Your task to perform on an android device: open app "AliExpress" (install if not already installed) Image 0: 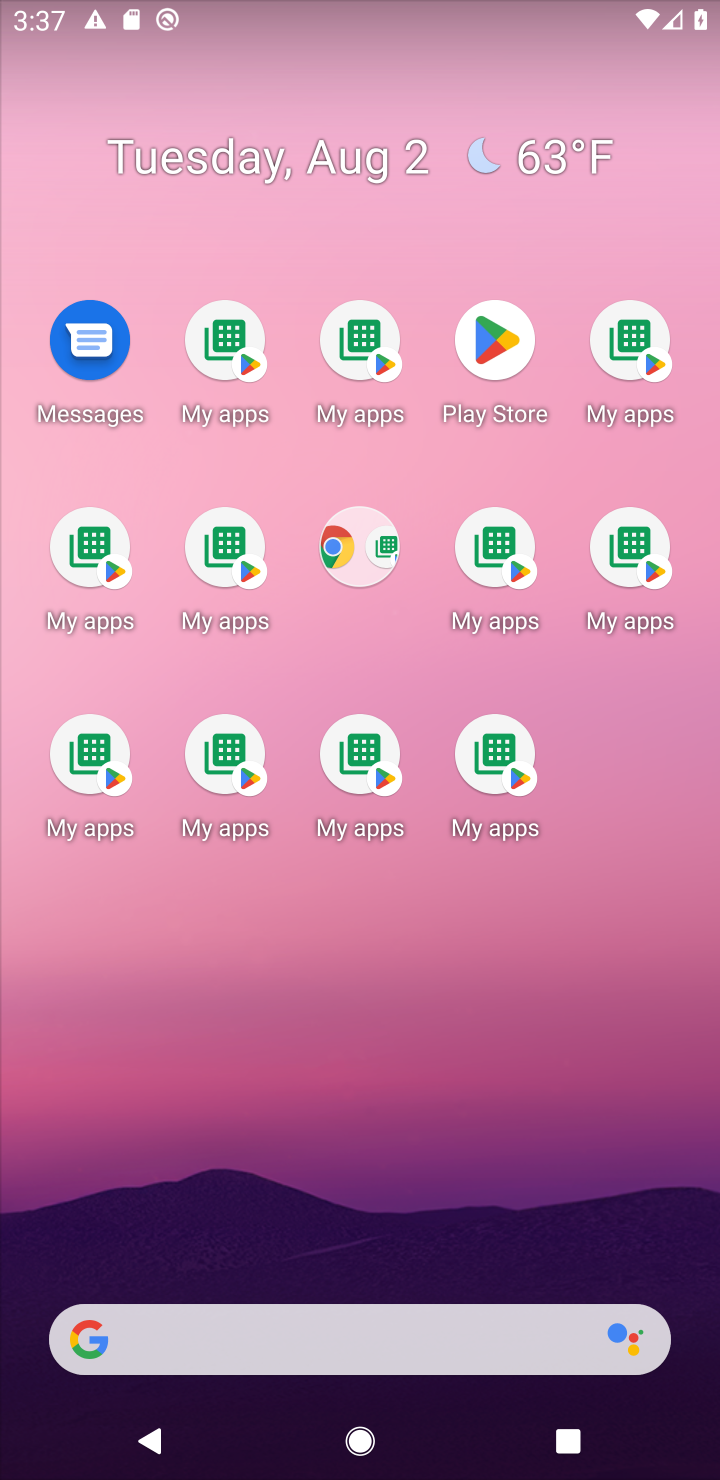
Step 0: press back button
Your task to perform on an android device: open app "AliExpress" (install if not already installed) Image 1: 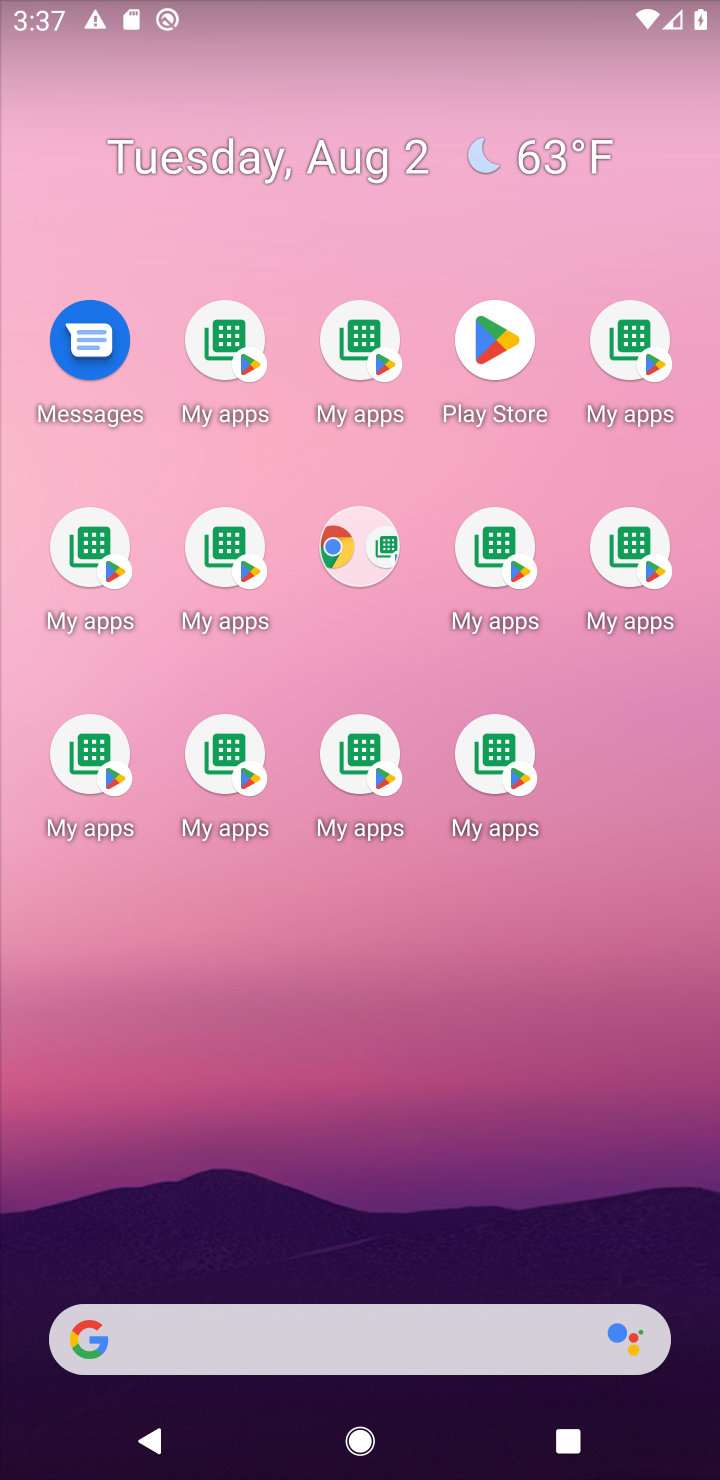
Step 1: click (315, 392)
Your task to perform on an android device: open app "AliExpress" (install if not already installed) Image 2: 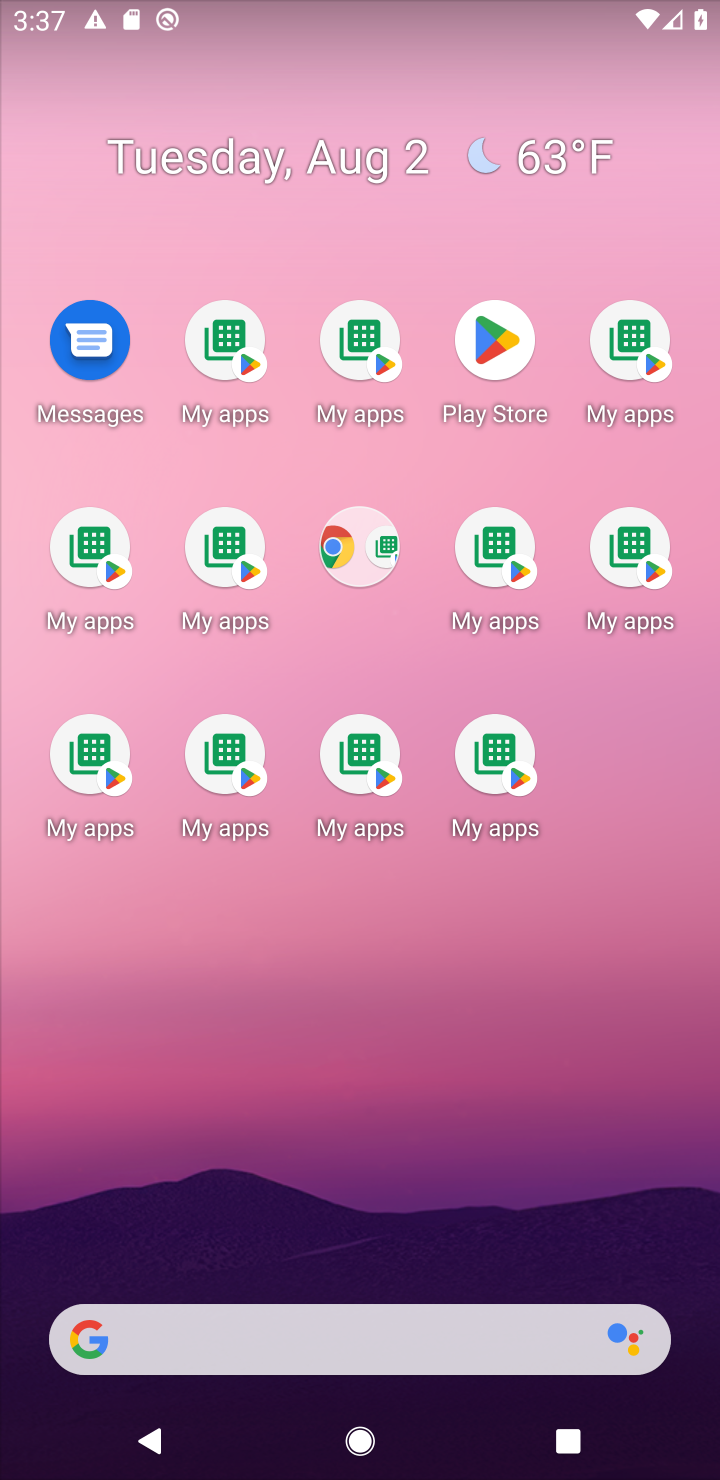
Step 2: click (575, 319)
Your task to perform on an android device: open app "AliExpress" (install if not already installed) Image 3: 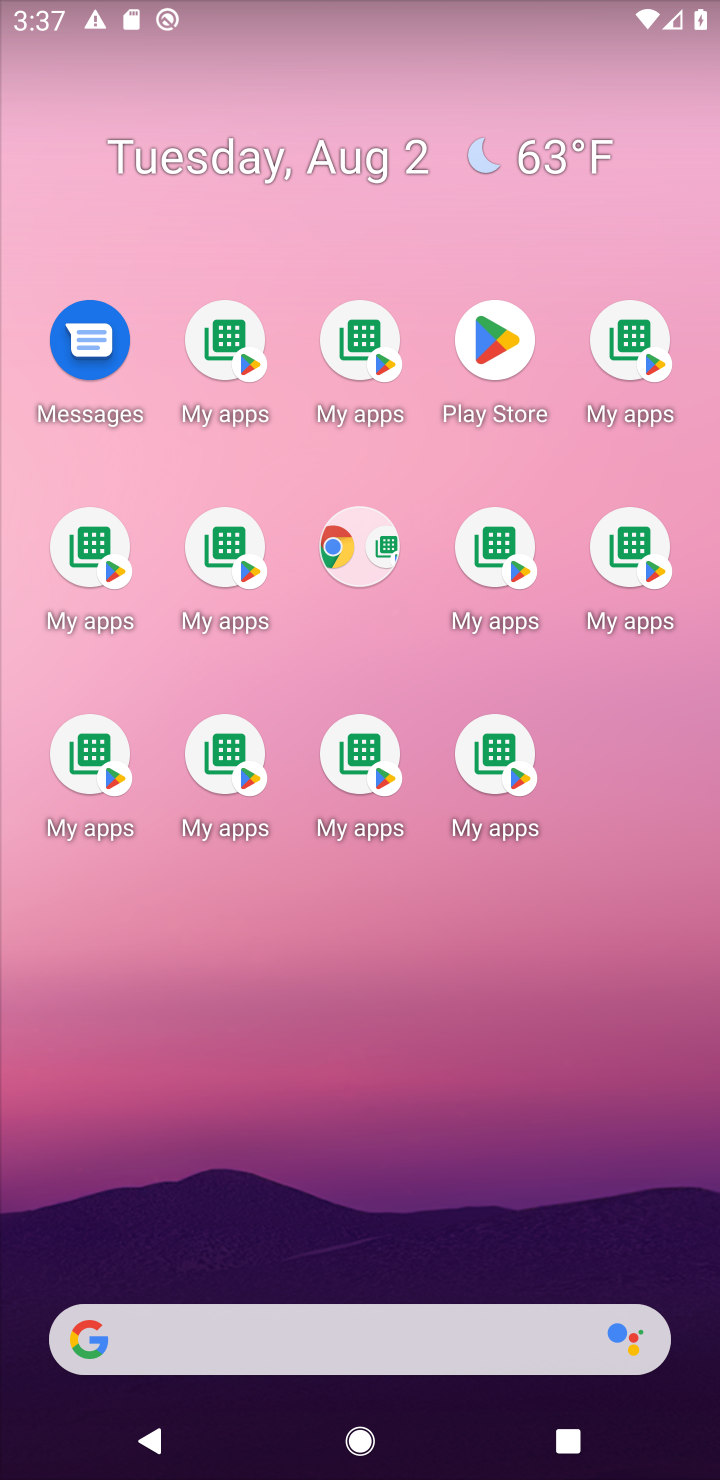
Step 3: drag from (528, 312) to (486, 370)
Your task to perform on an android device: open app "AliExpress" (install if not already installed) Image 4: 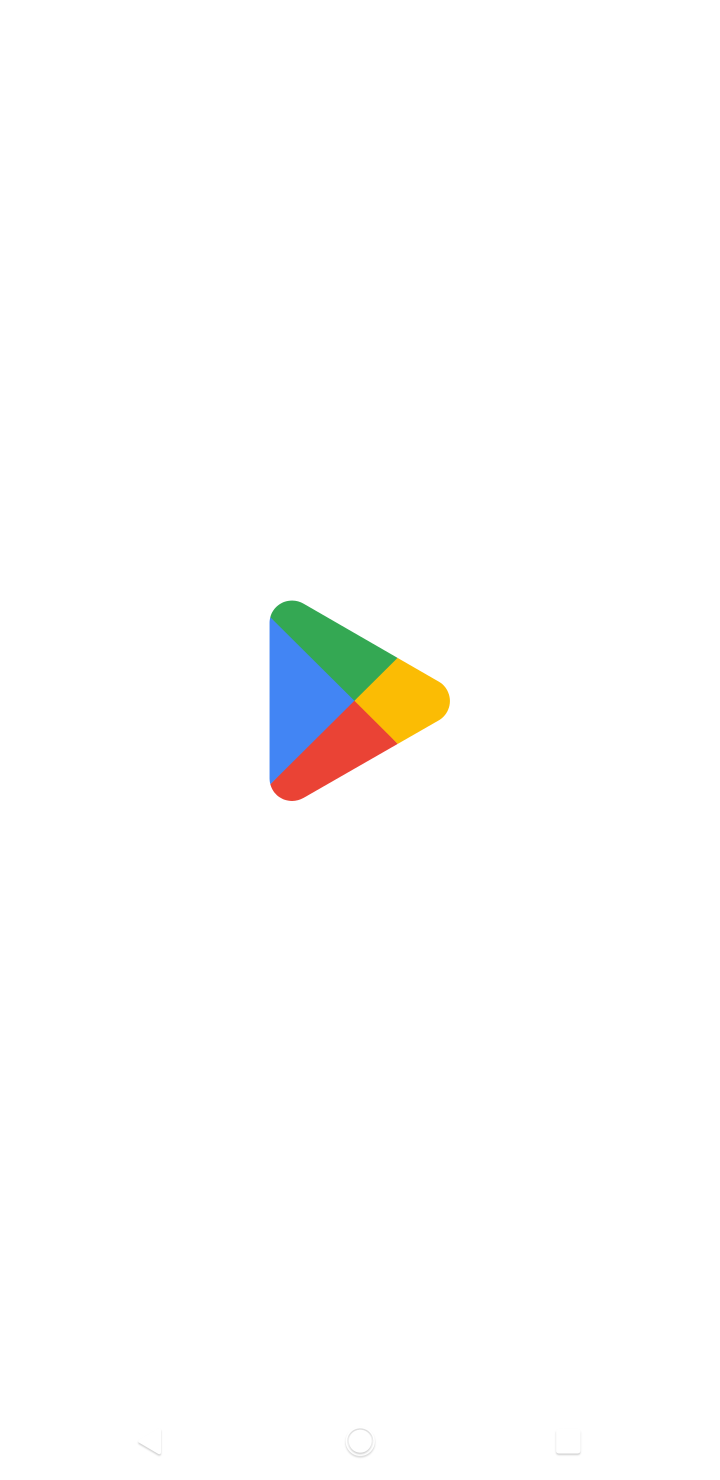
Step 4: click (495, 382)
Your task to perform on an android device: open app "AliExpress" (install if not already installed) Image 5: 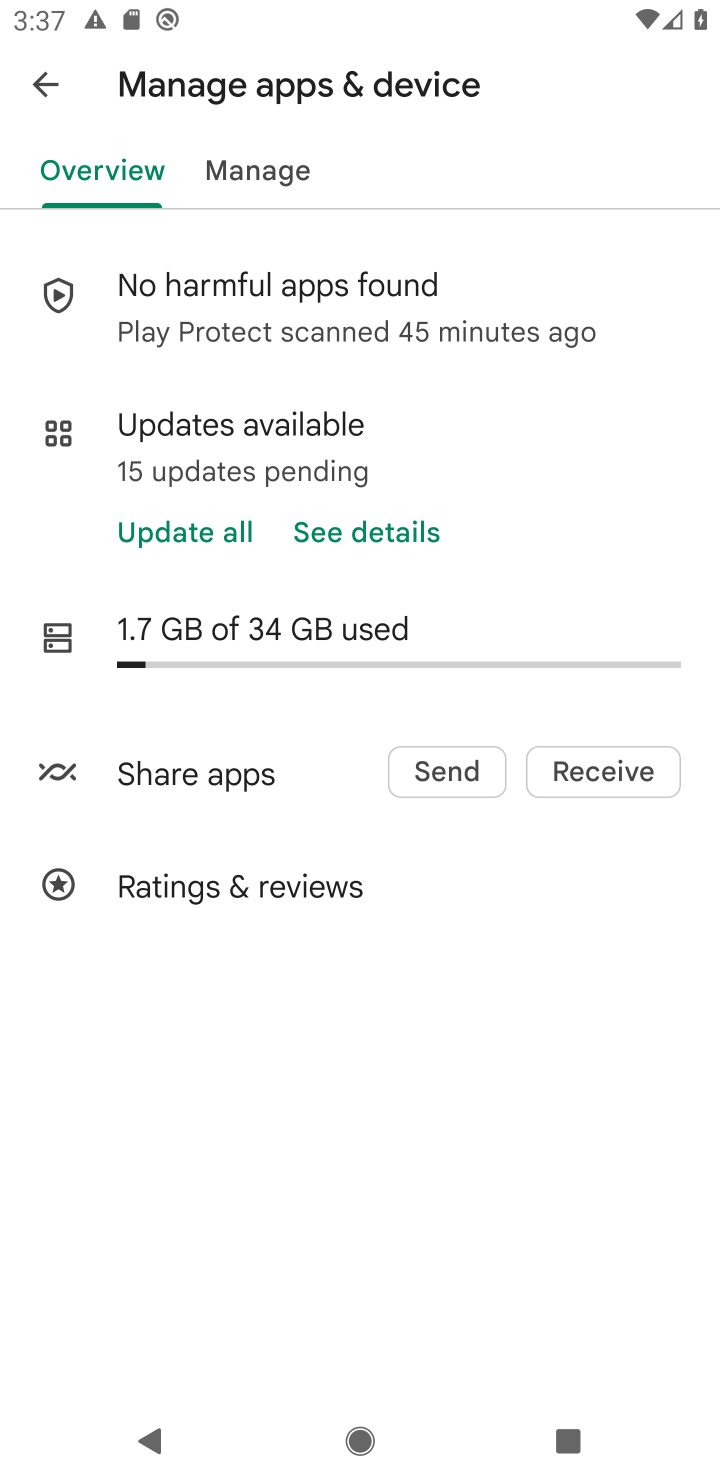
Step 5: click (64, 84)
Your task to perform on an android device: open app "AliExpress" (install if not already installed) Image 6: 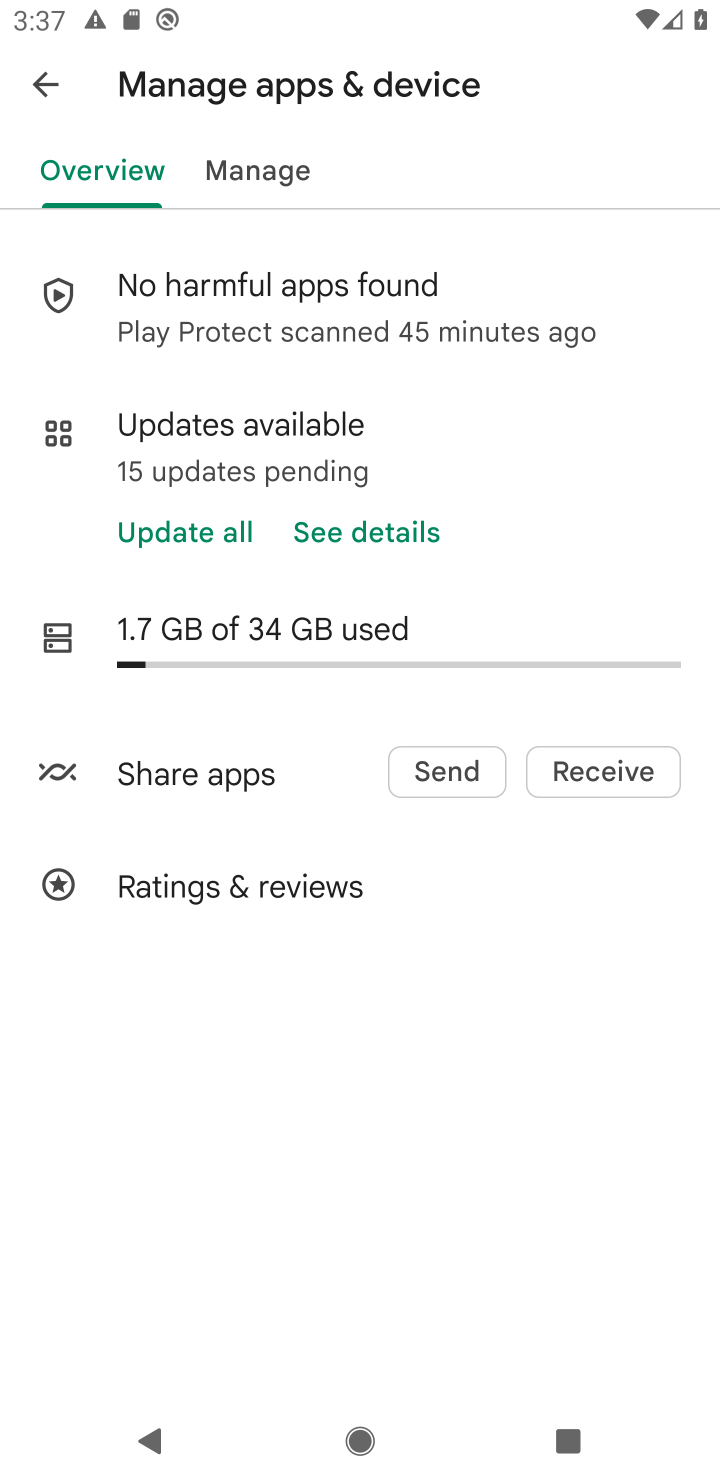
Step 6: click (53, 70)
Your task to perform on an android device: open app "AliExpress" (install if not already installed) Image 7: 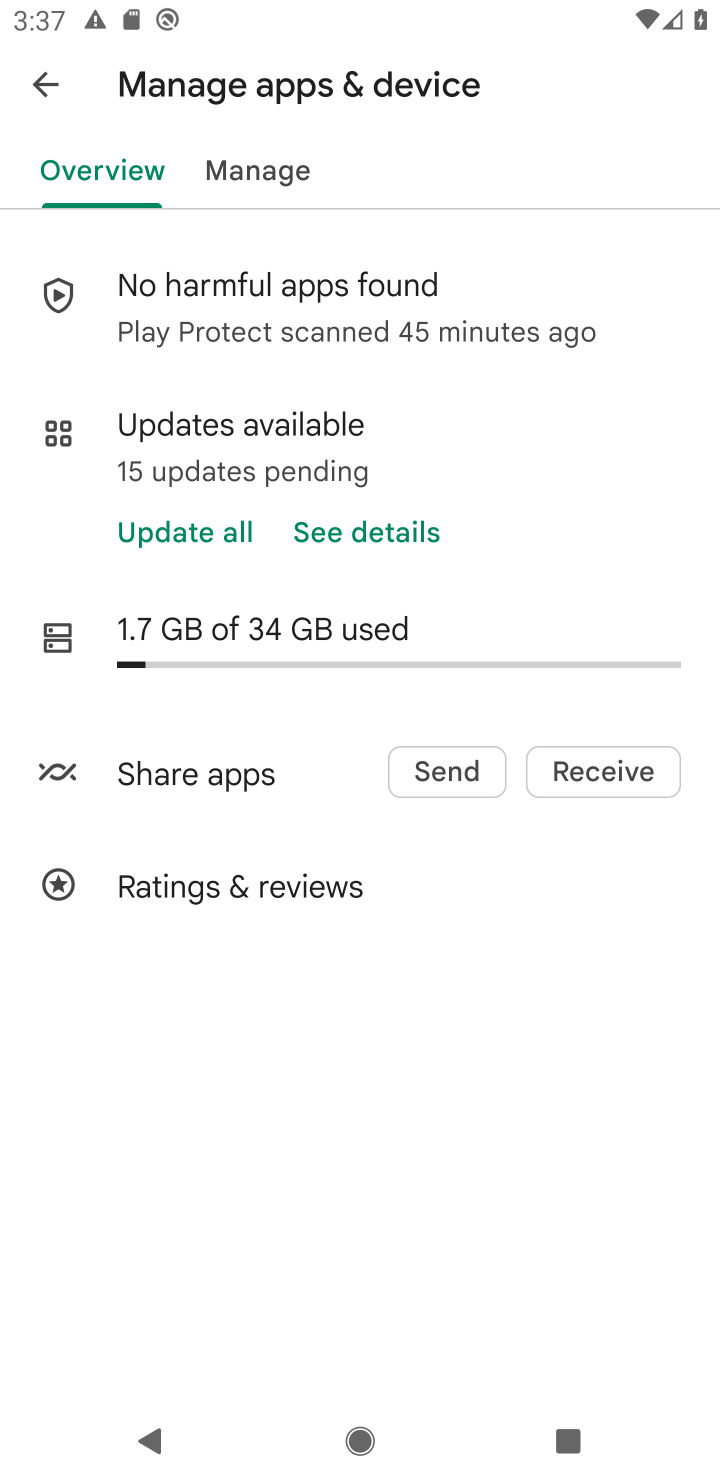
Step 7: click (50, 70)
Your task to perform on an android device: open app "AliExpress" (install if not already installed) Image 8: 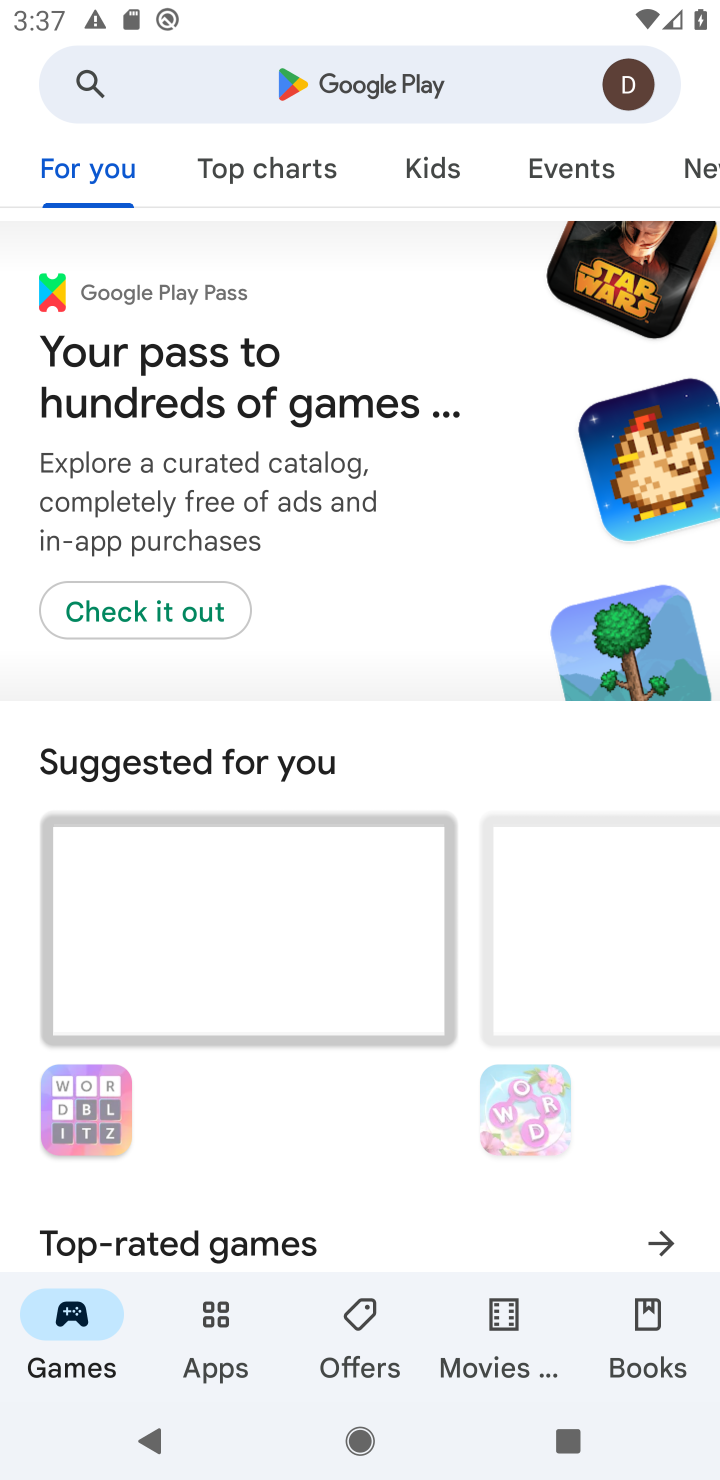
Step 8: click (372, 96)
Your task to perform on an android device: open app "AliExpress" (install if not already installed) Image 9: 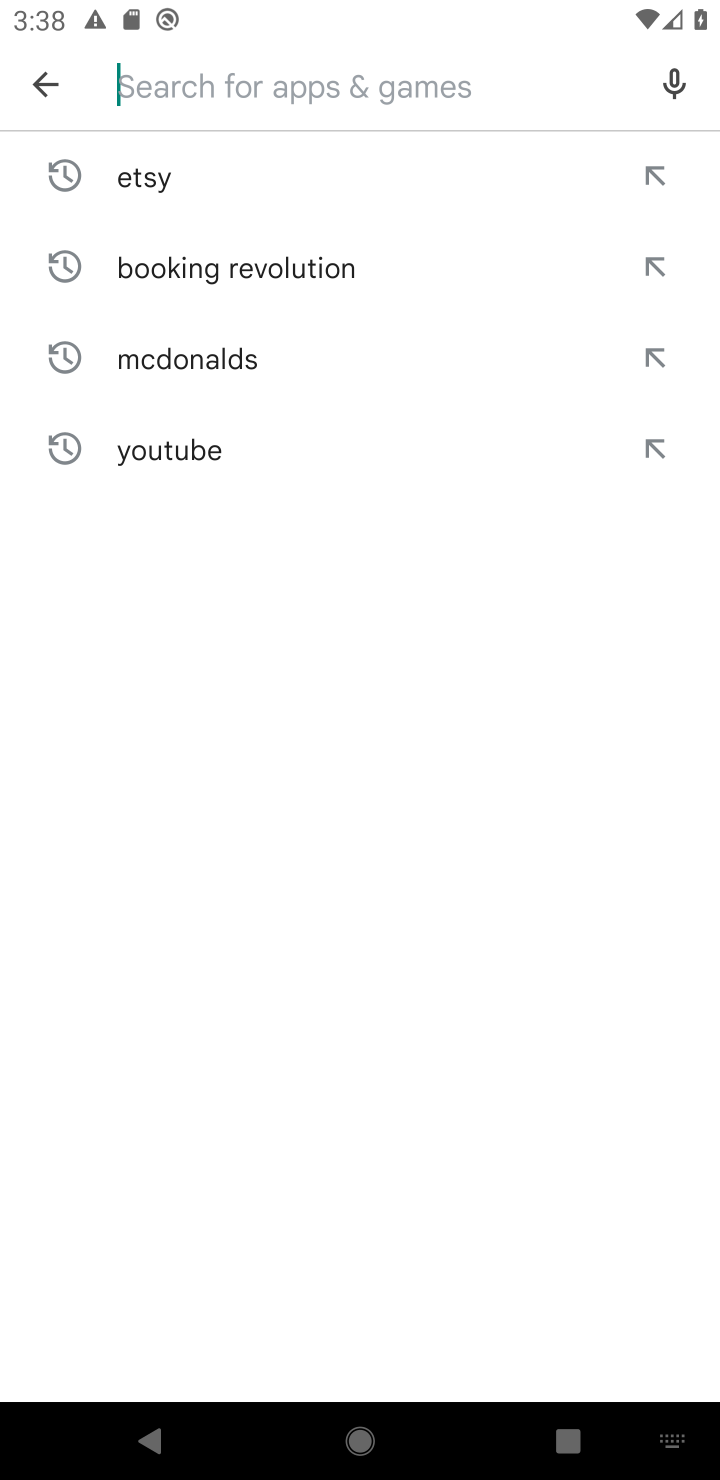
Step 9: type "aliexpress"
Your task to perform on an android device: open app "AliExpress" (install if not already installed) Image 10: 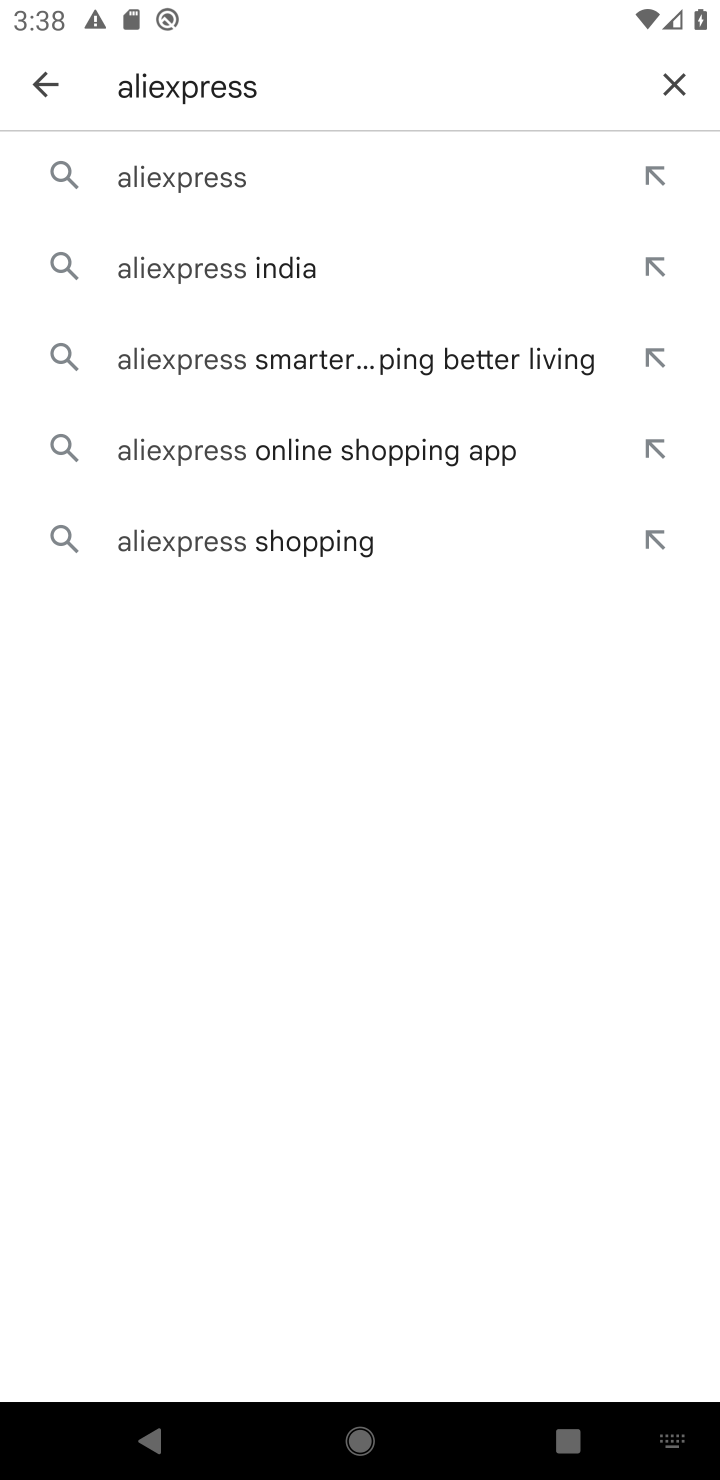
Step 10: click (213, 165)
Your task to perform on an android device: open app "AliExpress" (install if not already installed) Image 11: 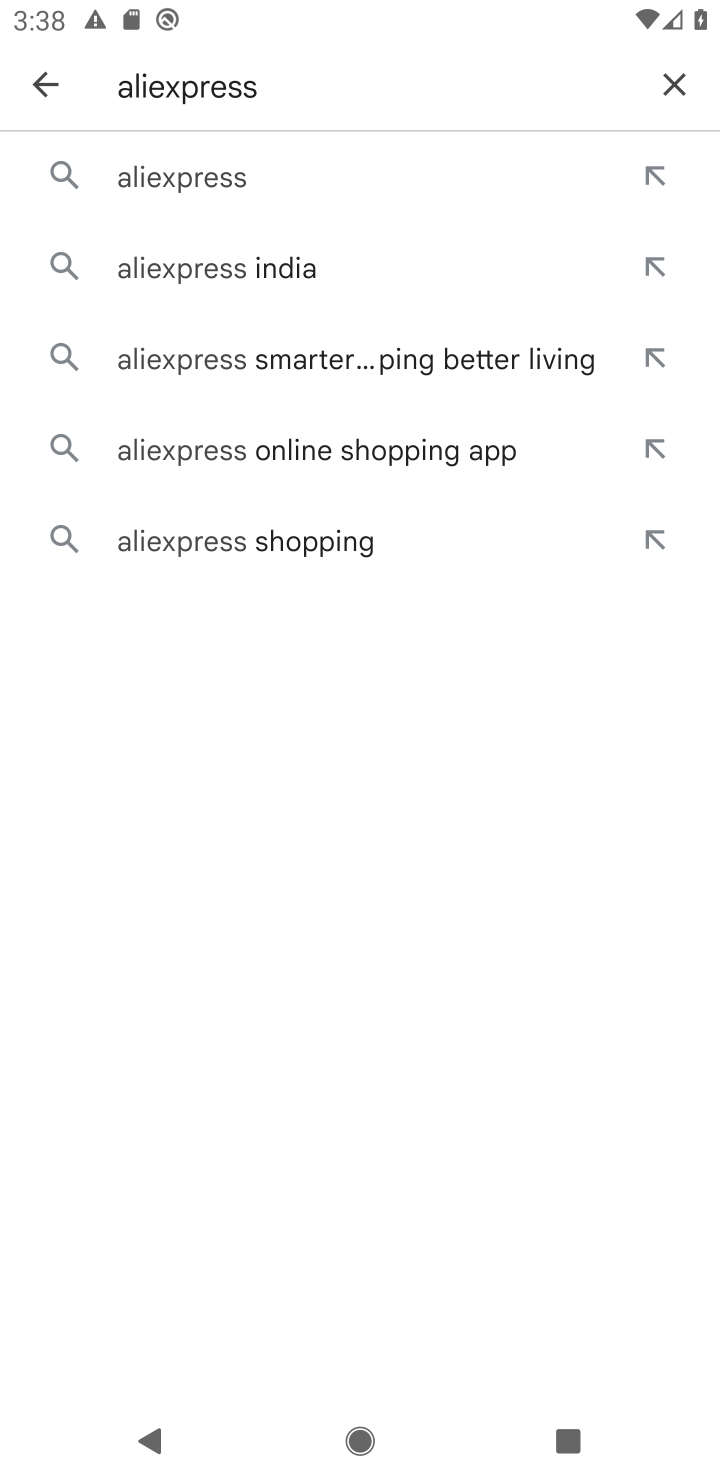
Step 11: click (650, 155)
Your task to perform on an android device: open app "AliExpress" (install if not already installed) Image 12: 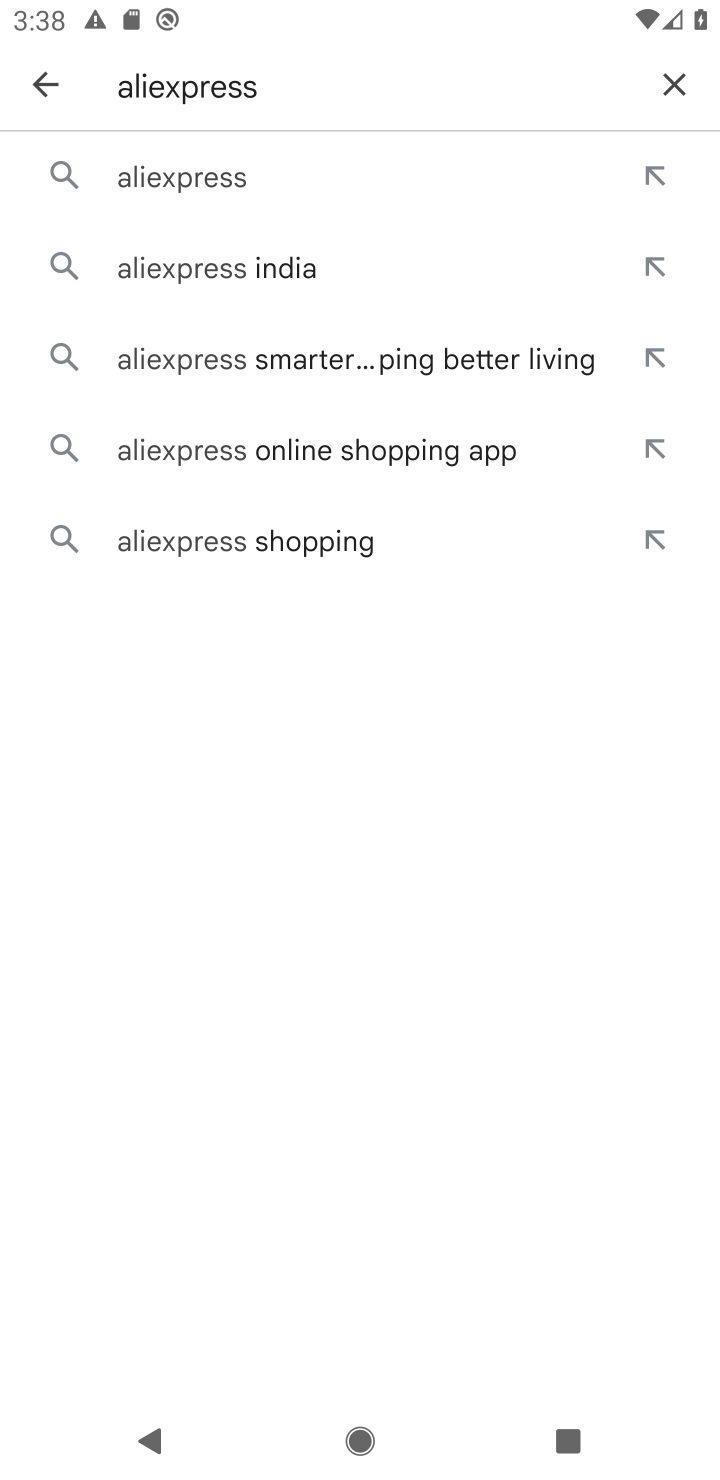
Step 12: click (166, 171)
Your task to perform on an android device: open app "AliExpress" (install if not already installed) Image 13: 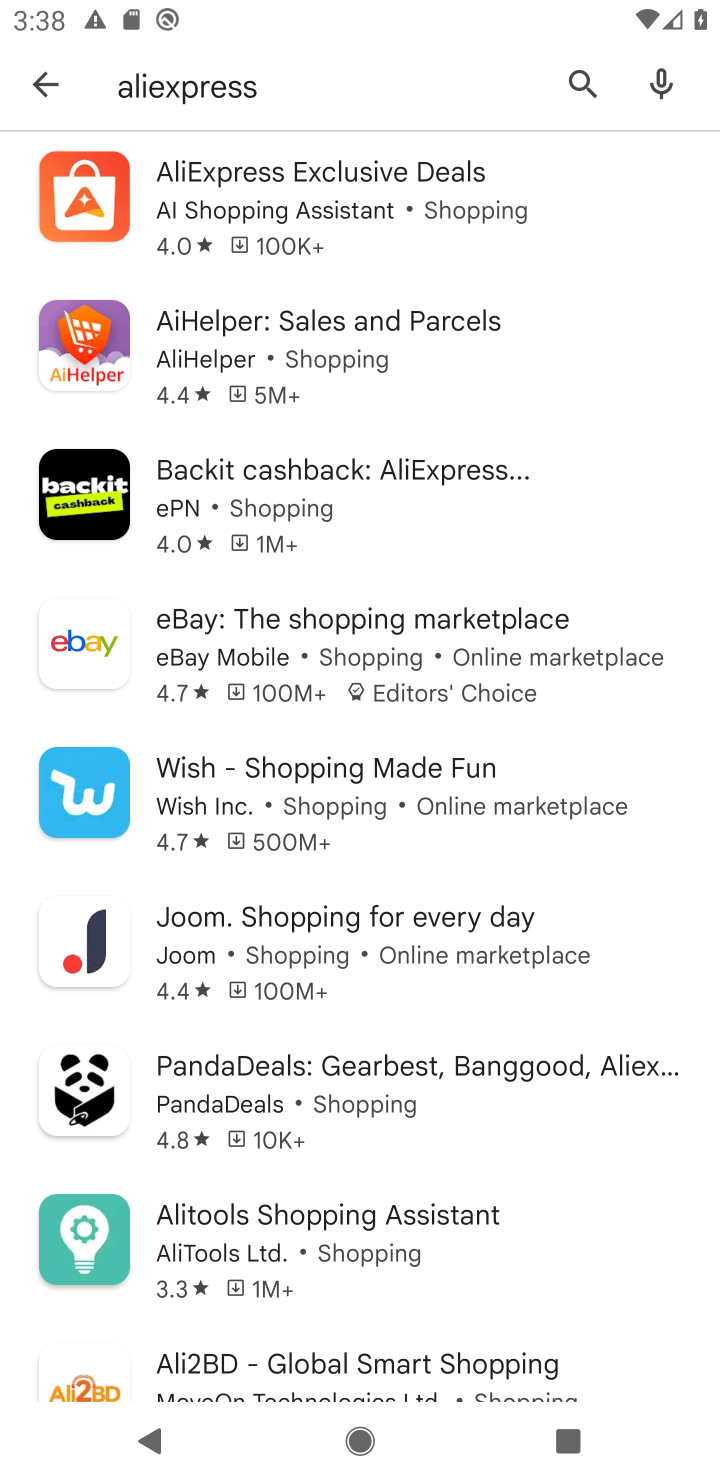
Step 13: task complete